Your task to perform on an android device: What's the latest video from GameSpot Trailers? Image 0: 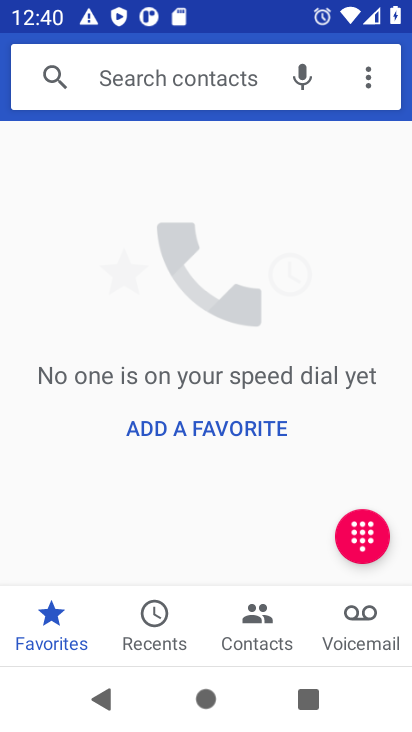
Step 0: press home button
Your task to perform on an android device: What's the latest video from GameSpot Trailers? Image 1: 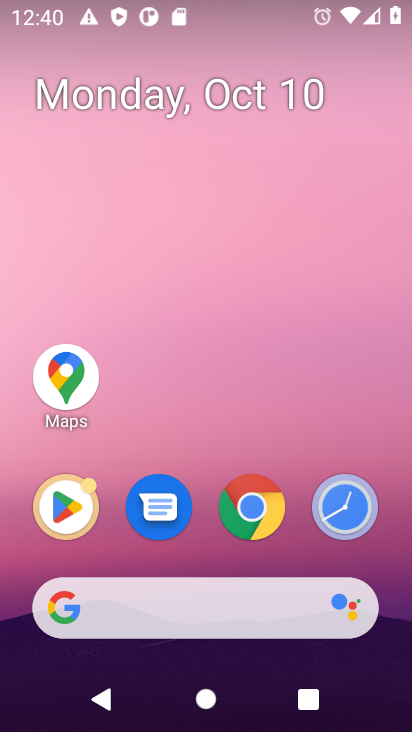
Step 1: click (229, 605)
Your task to perform on an android device: What's the latest video from GameSpot Trailers? Image 2: 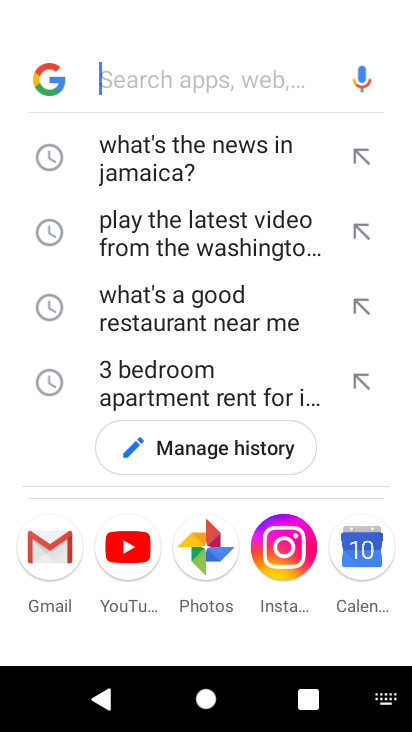
Step 2: type "What's the latest video from GameSpot Trailers"
Your task to perform on an android device: What's the latest video from GameSpot Trailers? Image 3: 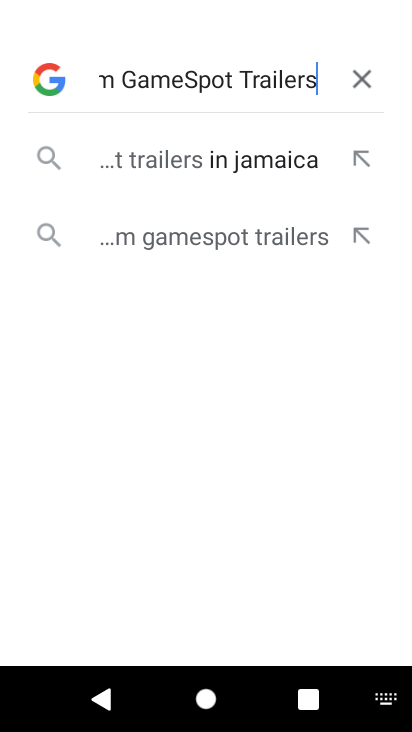
Step 3: press enter
Your task to perform on an android device: What's the latest video from GameSpot Trailers? Image 4: 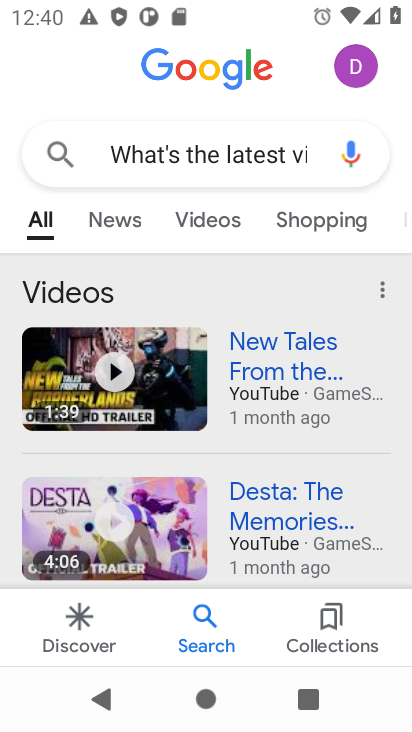
Step 4: task complete